Your task to perform on an android device: turn off notifications in google photos Image 0: 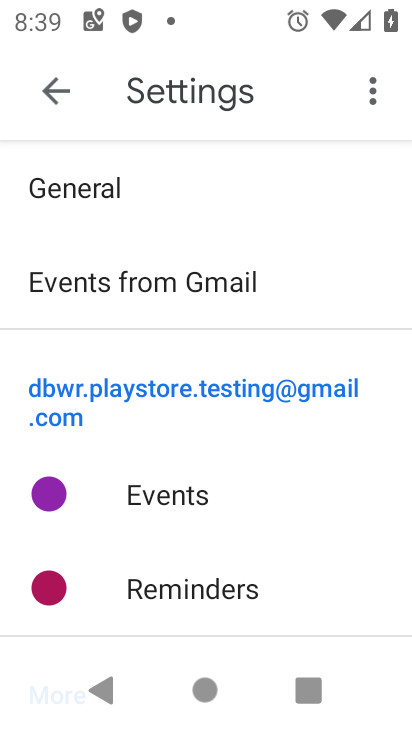
Step 0: press home button
Your task to perform on an android device: turn off notifications in google photos Image 1: 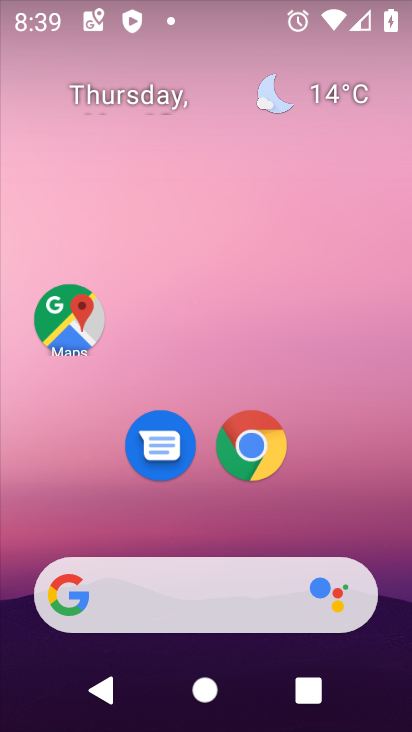
Step 1: drag from (235, 724) to (235, 119)
Your task to perform on an android device: turn off notifications in google photos Image 2: 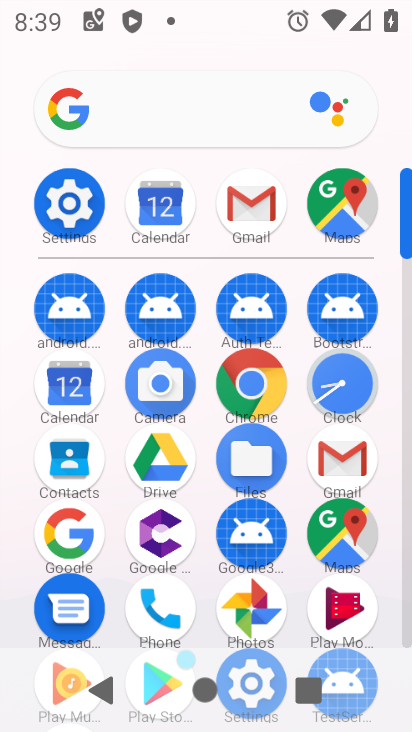
Step 2: click (244, 591)
Your task to perform on an android device: turn off notifications in google photos Image 3: 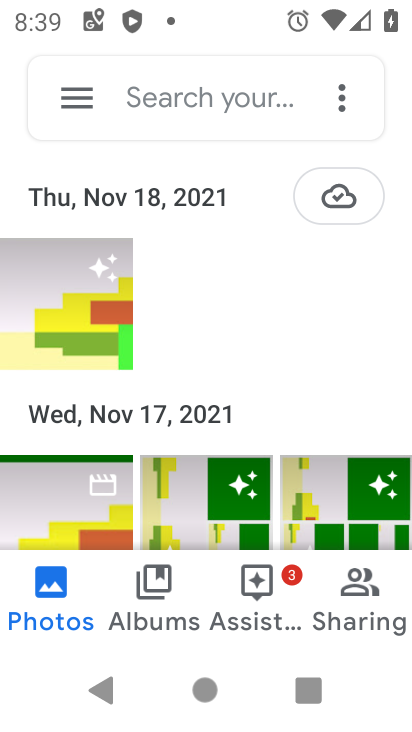
Step 3: click (80, 92)
Your task to perform on an android device: turn off notifications in google photos Image 4: 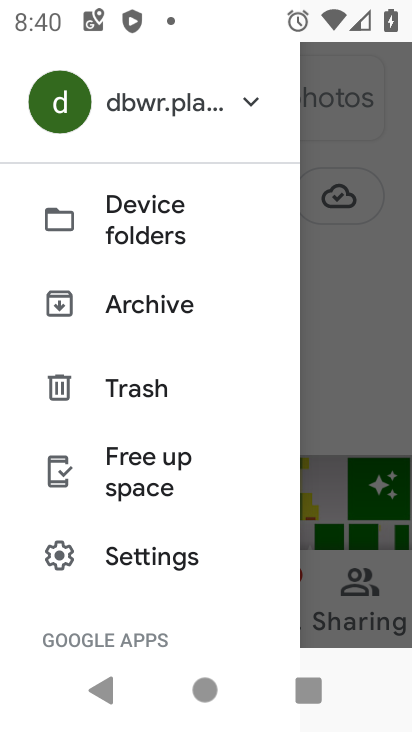
Step 4: drag from (186, 548) to (185, 189)
Your task to perform on an android device: turn off notifications in google photos Image 5: 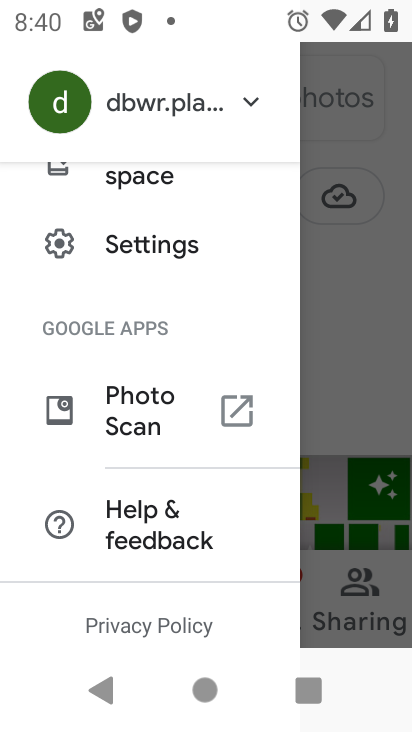
Step 5: drag from (169, 600) to (166, 207)
Your task to perform on an android device: turn off notifications in google photos Image 6: 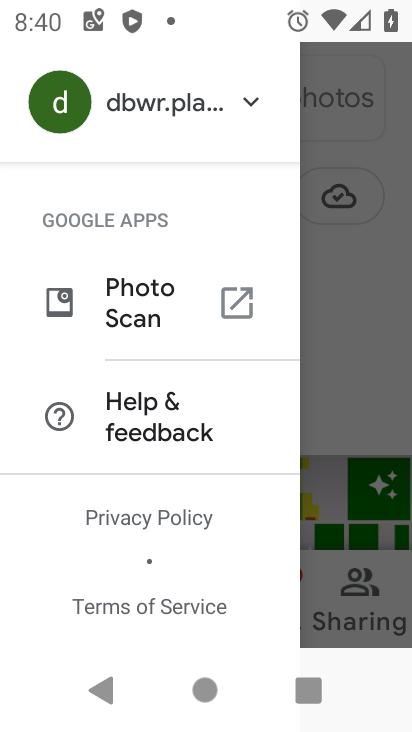
Step 6: drag from (170, 195) to (160, 472)
Your task to perform on an android device: turn off notifications in google photos Image 7: 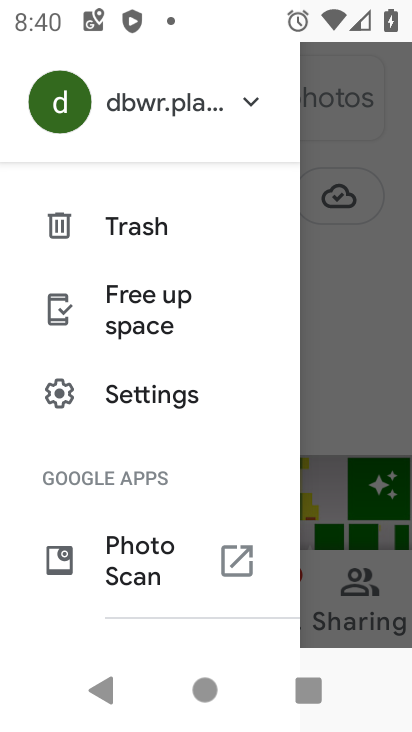
Step 7: click (130, 390)
Your task to perform on an android device: turn off notifications in google photos Image 8: 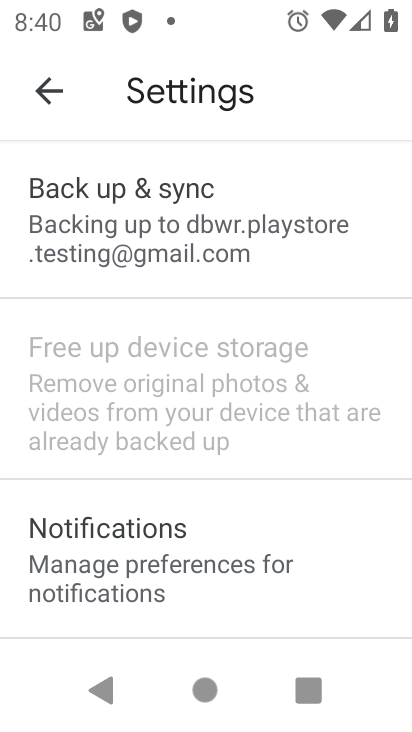
Step 8: click (80, 547)
Your task to perform on an android device: turn off notifications in google photos Image 9: 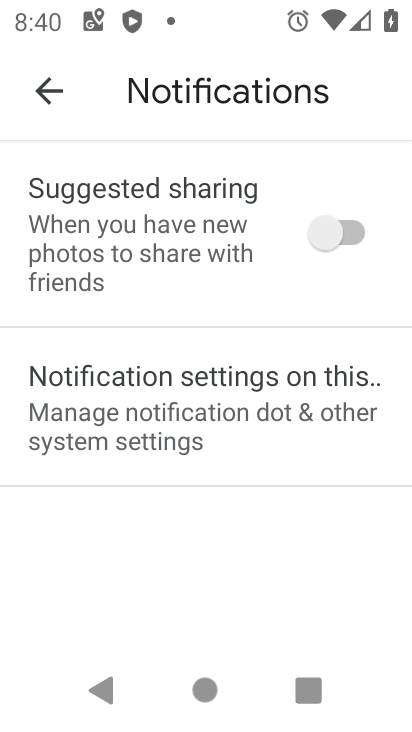
Step 9: click (237, 401)
Your task to perform on an android device: turn off notifications in google photos Image 10: 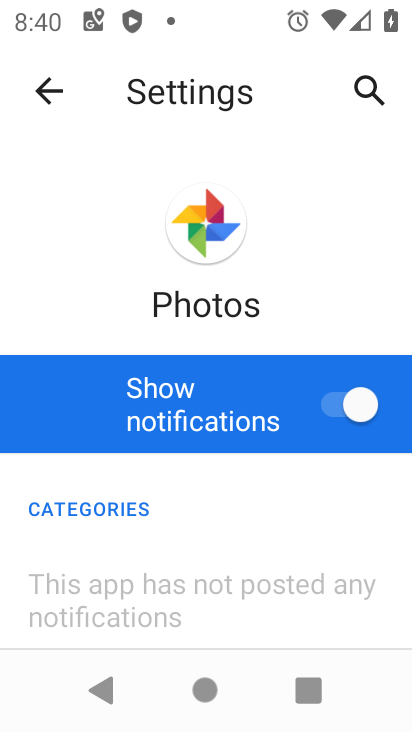
Step 10: click (340, 396)
Your task to perform on an android device: turn off notifications in google photos Image 11: 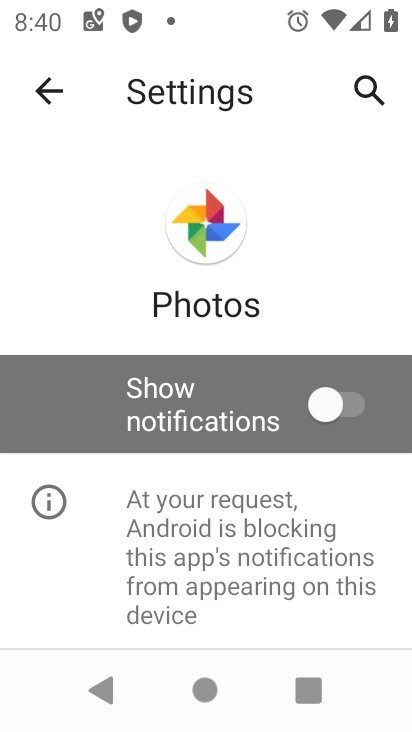
Step 11: task complete